Your task to perform on an android device: Go to Yahoo.com Image 0: 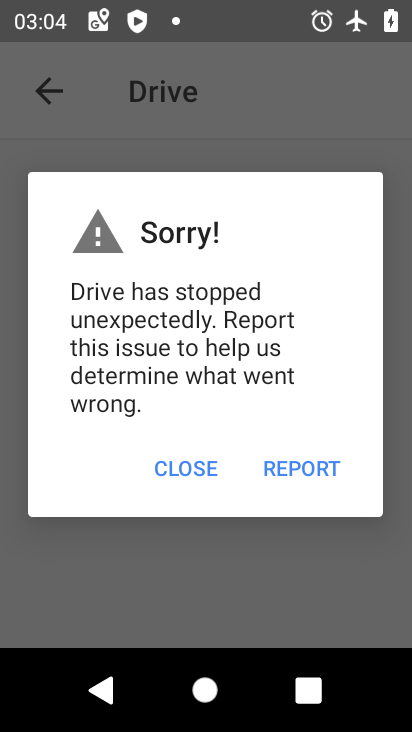
Step 0: press home button
Your task to perform on an android device: Go to Yahoo.com Image 1: 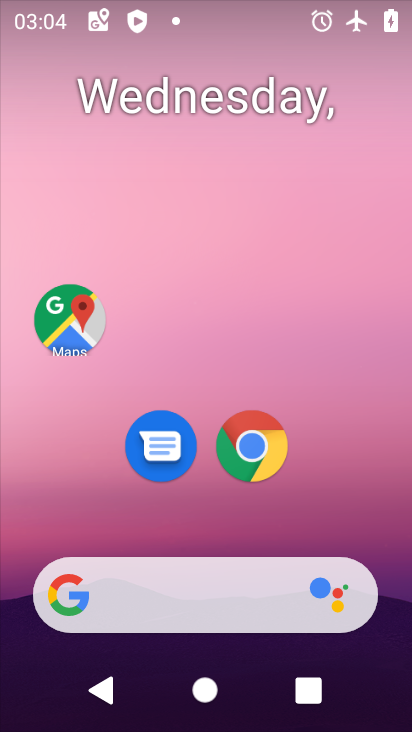
Step 1: click (262, 422)
Your task to perform on an android device: Go to Yahoo.com Image 2: 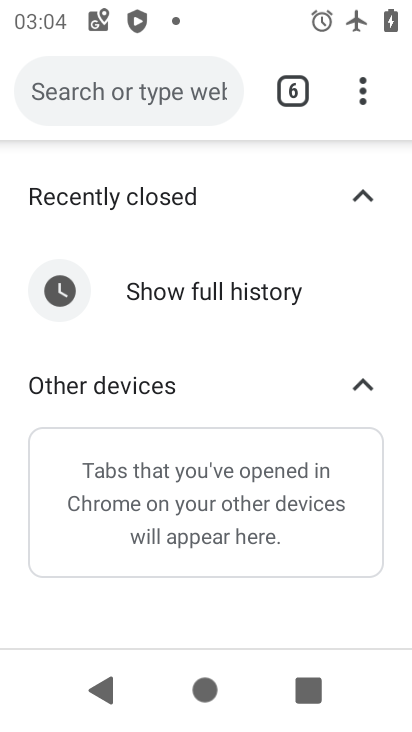
Step 2: click (294, 102)
Your task to perform on an android device: Go to Yahoo.com Image 3: 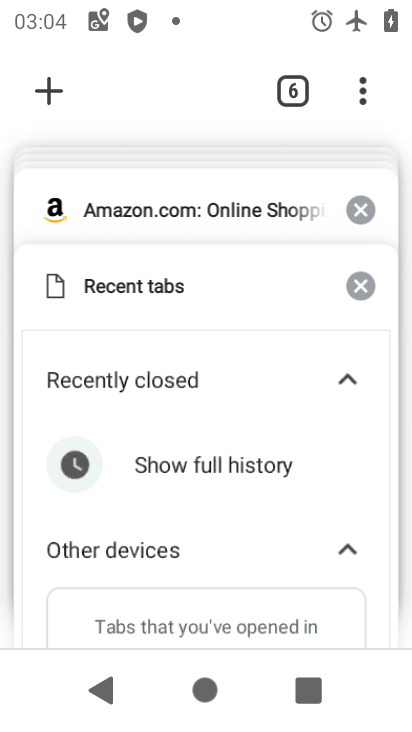
Step 3: drag from (194, 234) to (230, 461)
Your task to perform on an android device: Go to Yahoo.com Image 4: 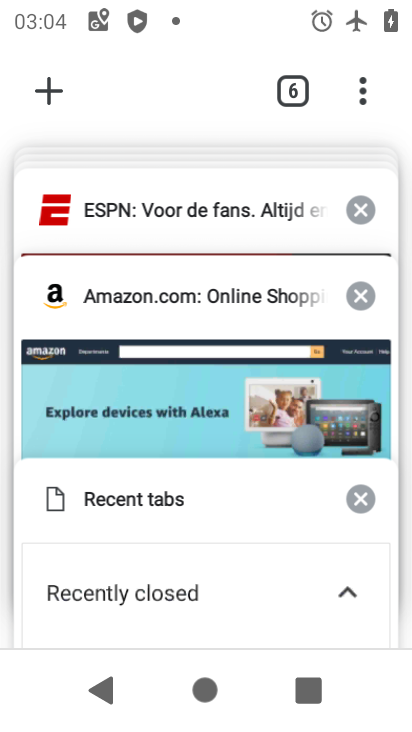
Step 4: drag from (233, 261) to (264, 454)
Your task to perform on an android device: Go to Yahoo.com Image 5: 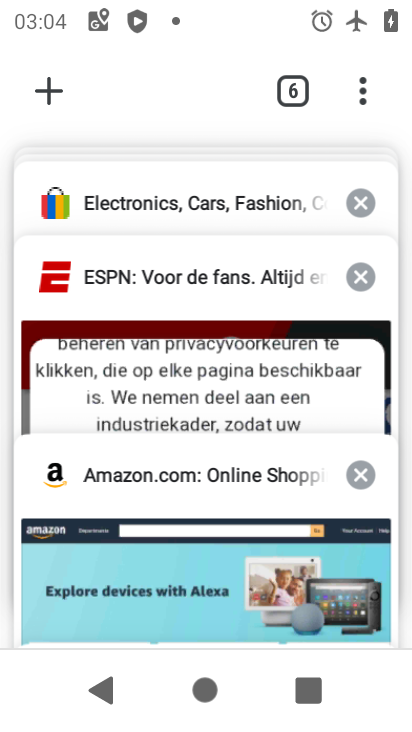
Step 5: drag from (234, 246) to (252, 388)
Your task to perform on an android device: Go to Yahoo.com Image 6: 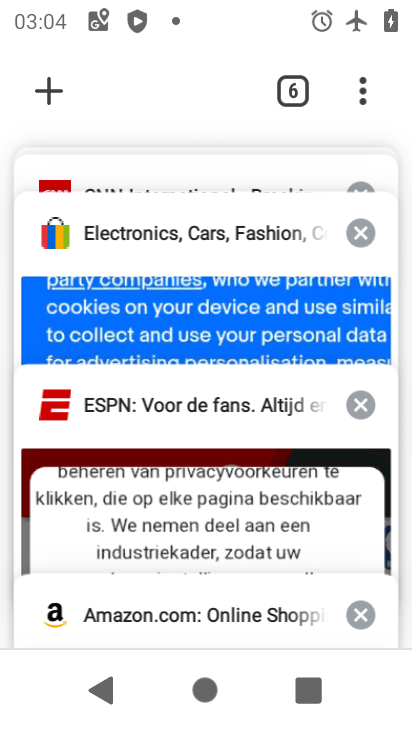
Step 6: drag from (219, 218) to (241, 373)
Your task to perform on an android device: Go to Yahoo.com Image 7: 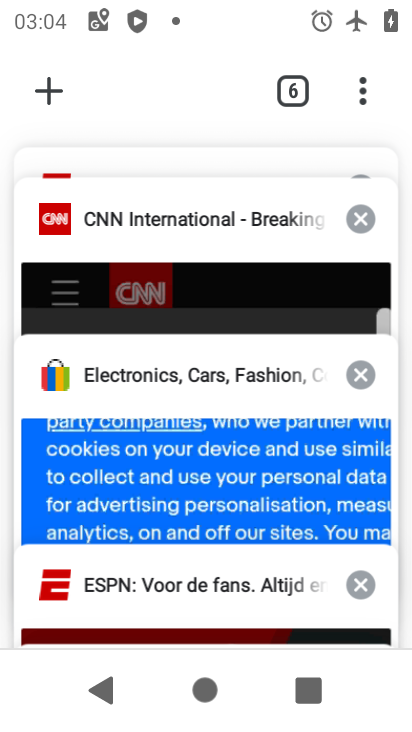
Step 7: drag from (217, 239) to (218, 357)
Your task to perform on an android device: Go to Yahoo.com Image 8: 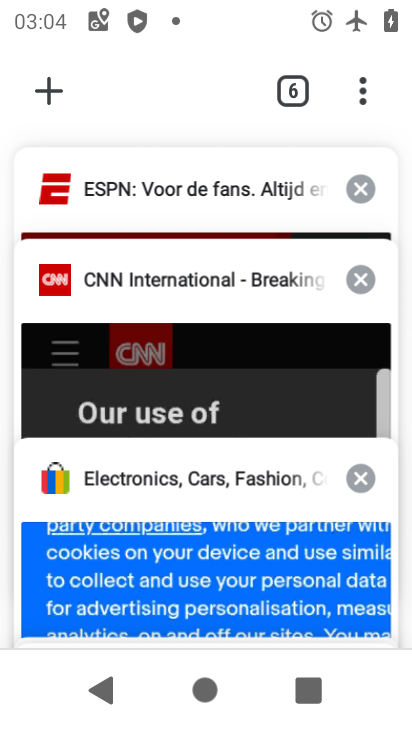
Step 8: drag from (198, 213) to (219, 383)
Your task to perform on an android device: Go to Yahoo.com Image 9: 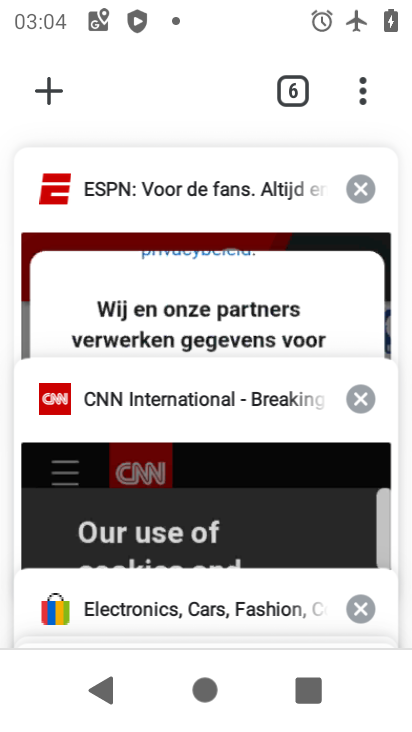
Step 9: drag from (219, 223) to (230, 383)
Your task to perform on an android device: Go to Yahoo.com Image 10: 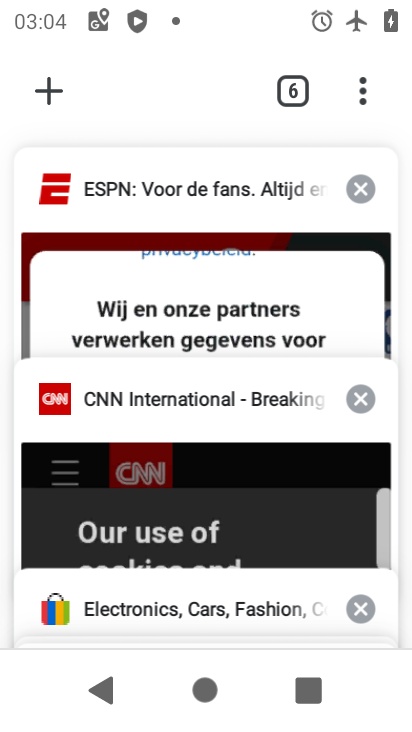
Step 10: drag from (216, 237) to (216, 409)
Your task to perform on an android device: Go to Yahoo.com Image 11: 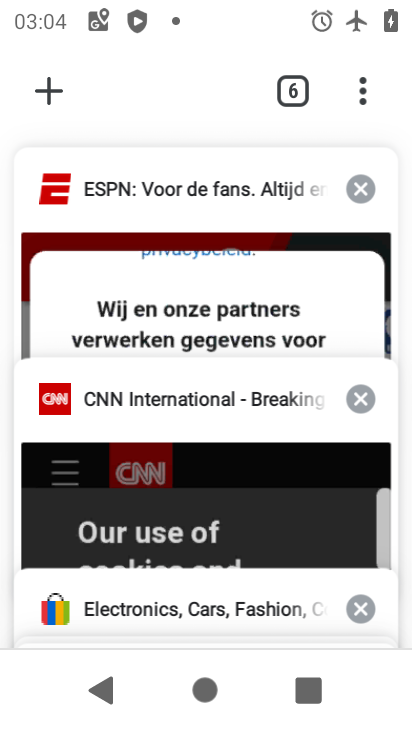
Step 11: drag from (206, 234) to (210, 396)
Your task to perform on an android device: Go to Yahoo.com Image 12: 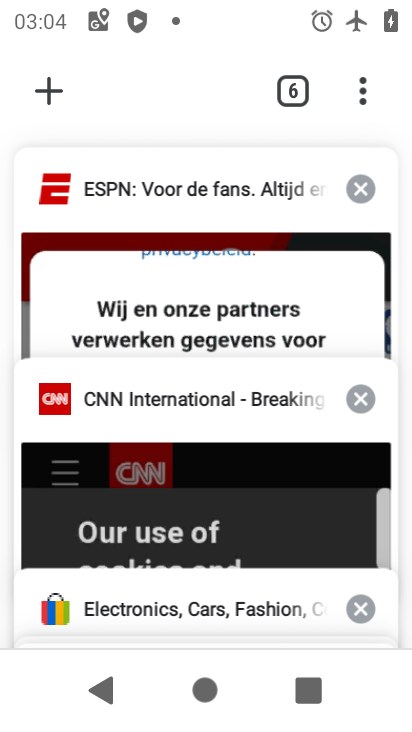
Step 12: click (52, 97)
Your task to perform on an android device: Go to Yahoo.com Image 13: 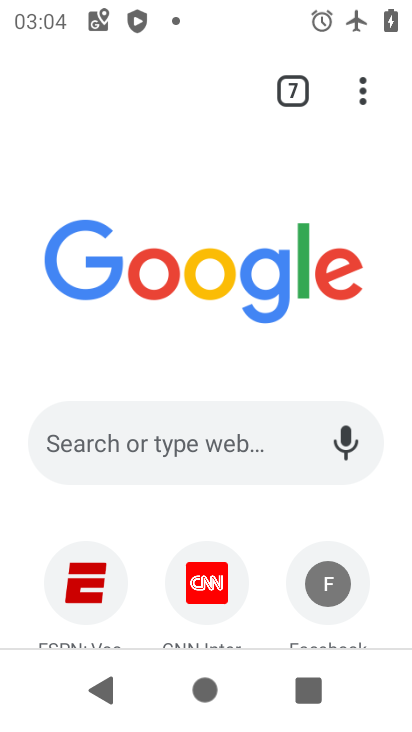
Step 13: click (223, 416)
Your task to perform on an android device: Go to Yahoo.com Image 14: 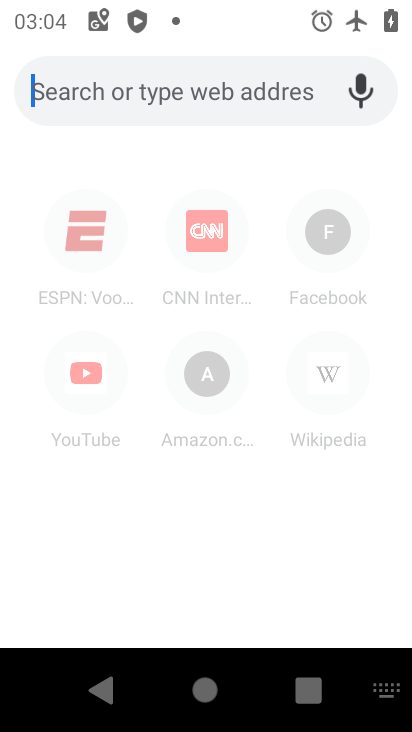
Step 14: type "Yahoo.com"
Your task to perform on an android device: Go to Yahoo.com Image 15: 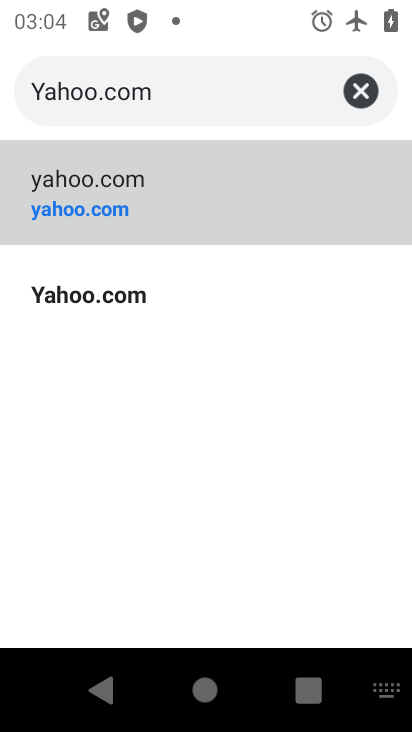
Step 15: click (144, 185)
Your task to perform on an android device: Go to Yahoo.com Image 16: 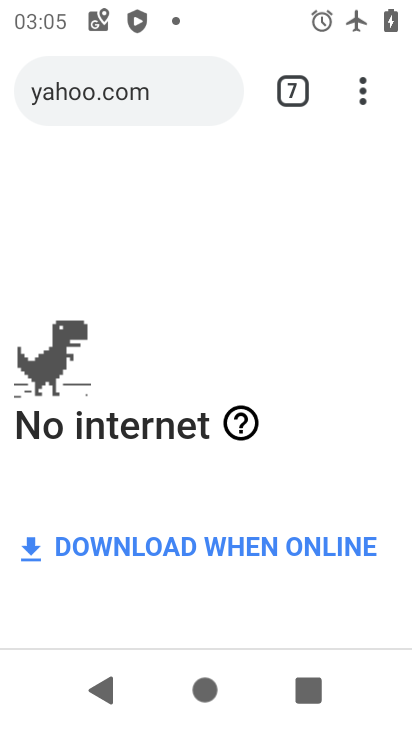
Step 16: task complete